Your task to perform on an android device: Search for Italian restaurants on Maps Image 0: 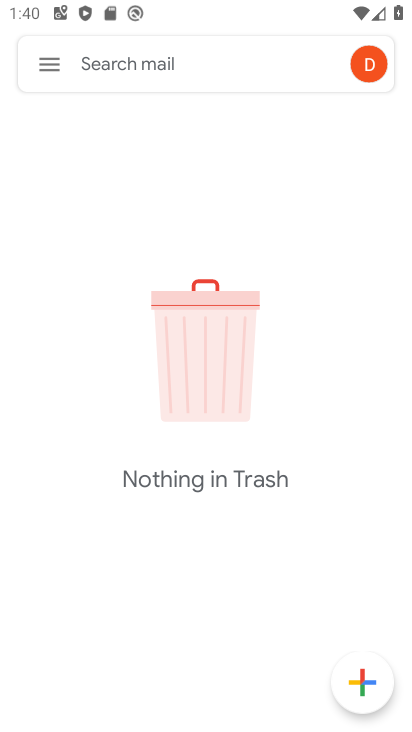
Step 0: press home button
Your task to perform on an android device: Search for Italian restaurants on Maps Image 1: 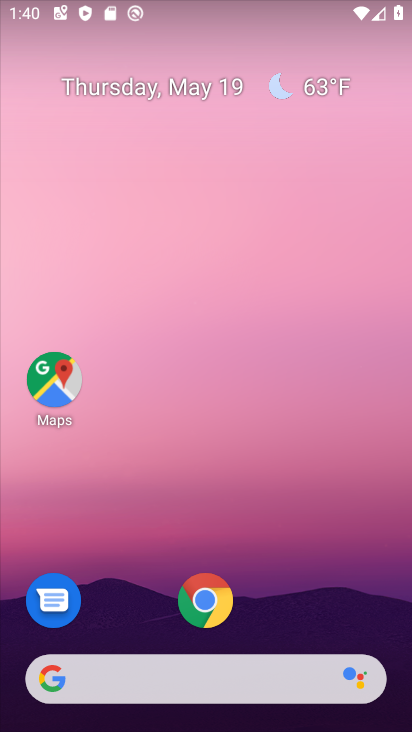
Step 1: click (54, 372)
Your task to perform on an android device: Search for Italian restaurants on Maps Image 2: 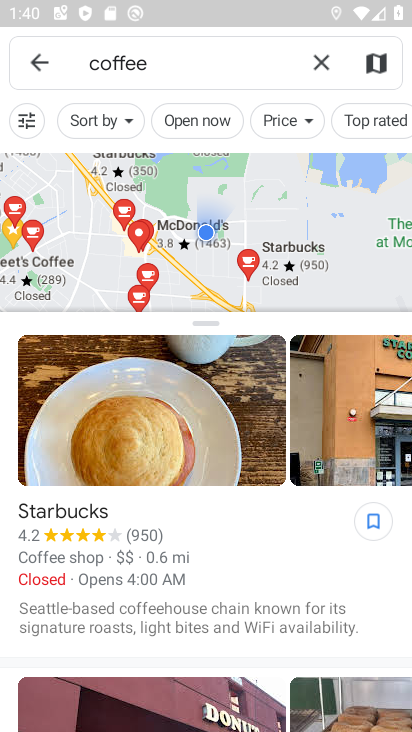
Step 2: click (36, 64)
Your task to perform on an android device: Search for Italian restaurants on Maps Image 3: 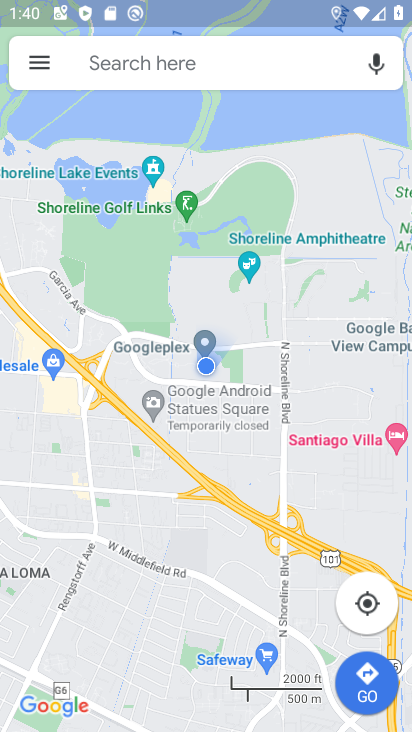
Step 3: click (174, 62)
Your task to perform on an android device: Search for Italian restaurants on Maps Image 4: 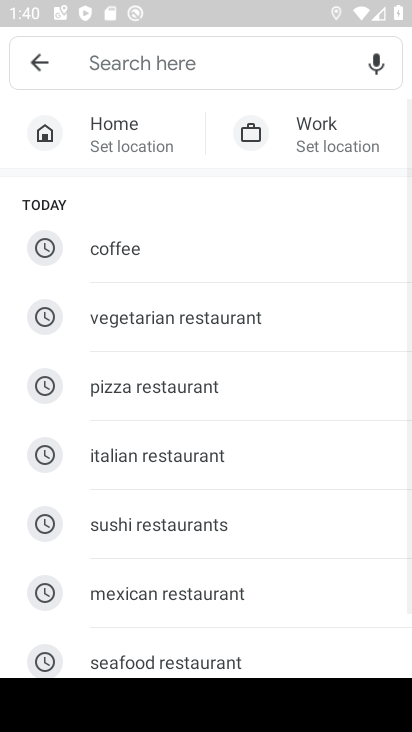
Step 4: click (127, 466)
Your task to perform on an android device: Search for Italian restaurants on Maps Image 5: 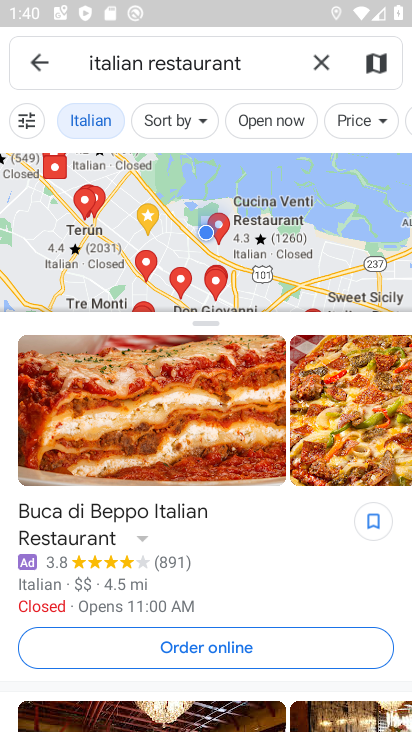
Step 5: task complete